Your task to perform on an android device: turn off improve location accuracy Image 0: 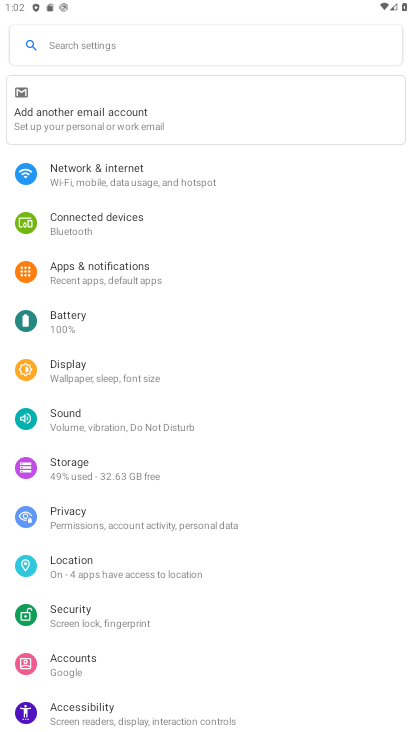
Step 0: click (117, 576)
Your task to perform on an android device: turn off improve location accuracy Image 1: 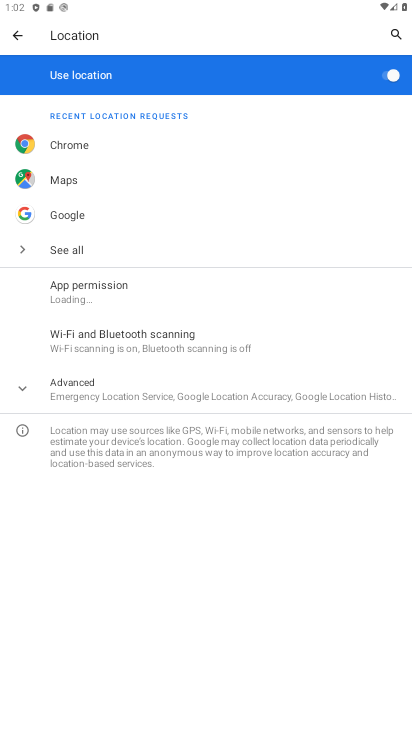
Step 1: click (116, 405)
Your task to perform on an android device: turn off improve location accuracy Image 2: 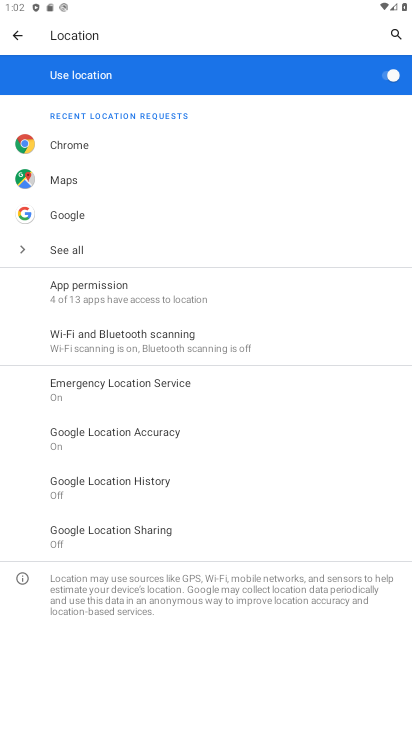
Step 2: click (138, 431)
Your task to perform on an android device: turn off improve location accuracy Image 3: 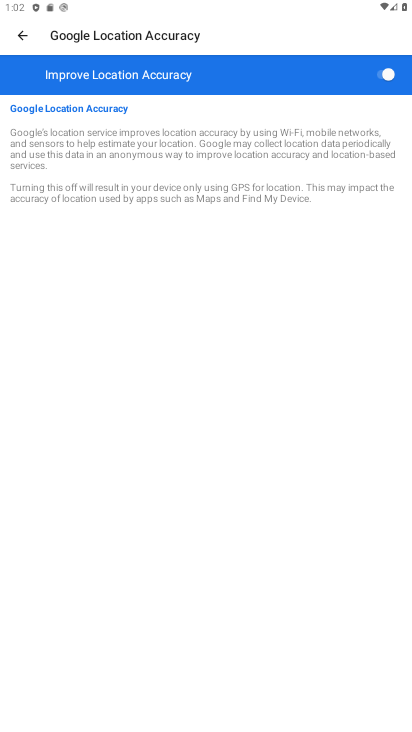
Step 3: click (386, 81)
Your task to perform on an android device: turn off improve location accuracy Image 4: 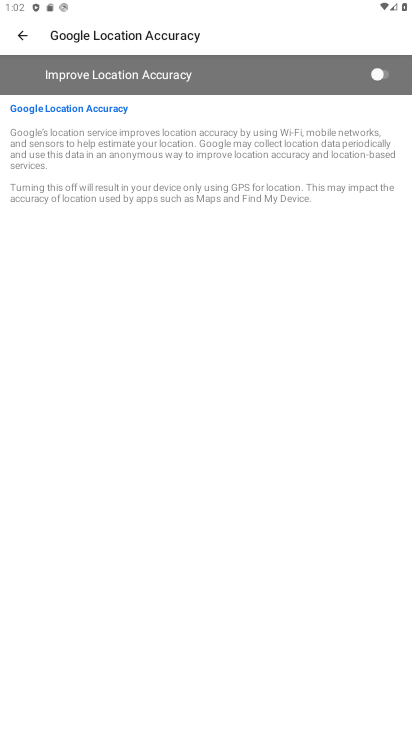
Step 4: task complete